Your task to perform on an android device: Open internet settings Image 0: 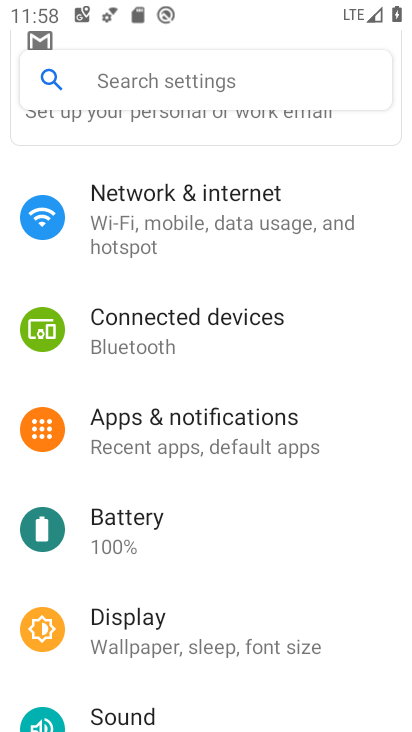
Step 0: click (270, 214)
Your task to perform on an android device: Open internet settings Image 1: 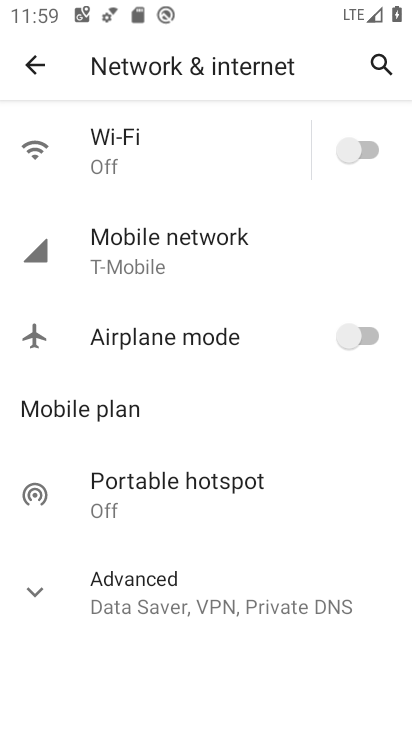
Step 1: task complete